Your task to perform on an android device: allow notifications from all sites in the chrome app Image 0: 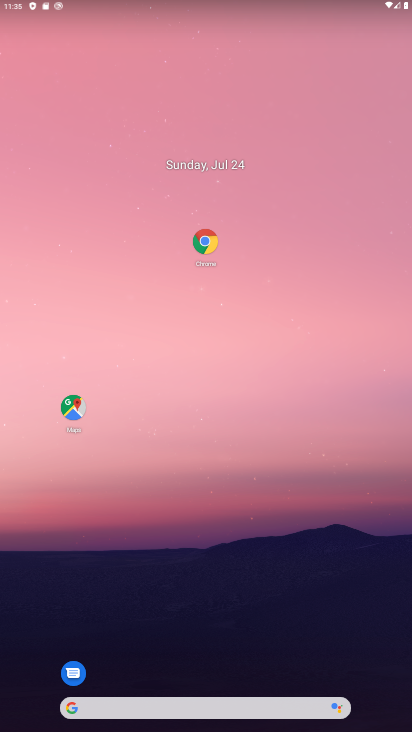
Step 0: drag from (275, 618) to (279, 29)
Your task to perform on an android device: allow notifications from all sites in the chrome app Image 1: 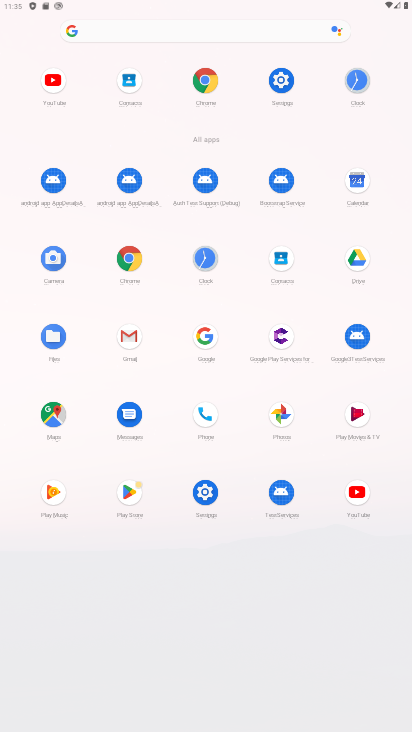
Step 1: click (136, 259)
Your task to perform on an android device: allow notifications from all sites in the chrome app Image 2: 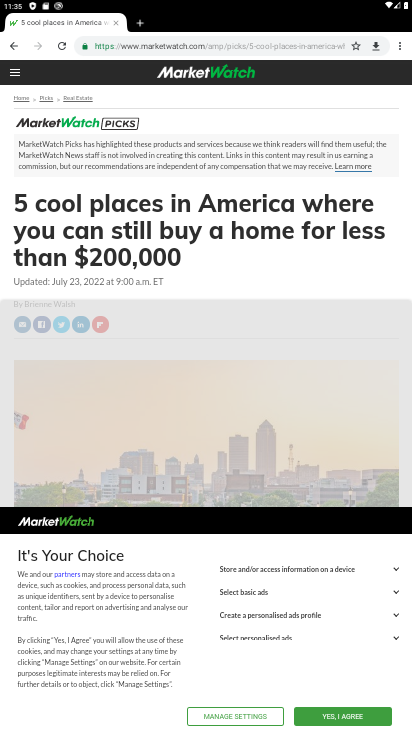
Step 2: drag from (408, 46) to (337, 284)
Your task to perform on an android device: allow notifications from all sites in the chrome app Image 3: 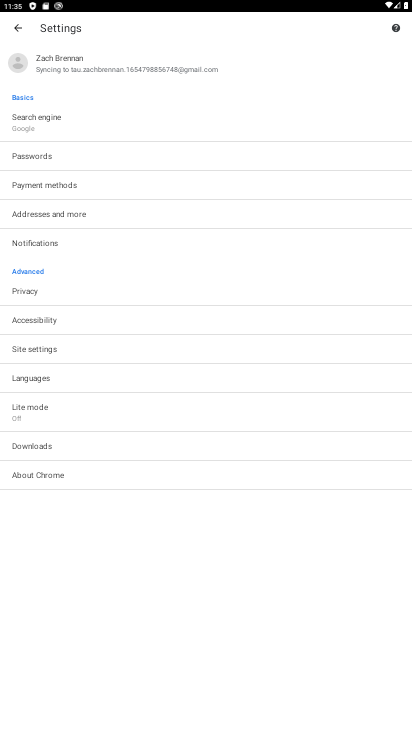
Step 3: click (44, 359)
Your task to perform on an android device: allow notifications from all sites in the chrome app Image 4: 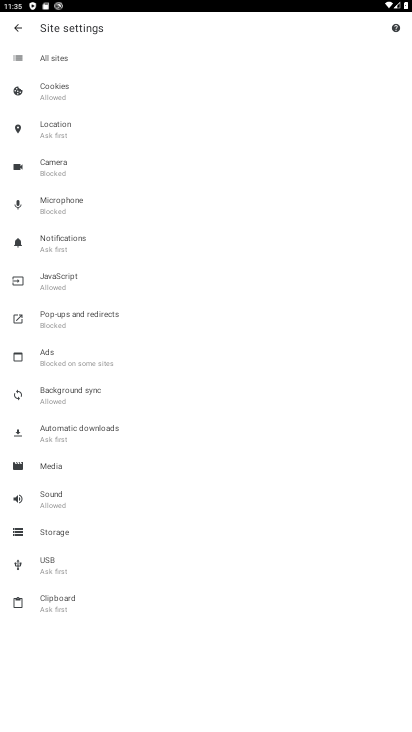
Step 4: task complete